Your task to perform on an android device: allow cookies in the chrome app Image 0: 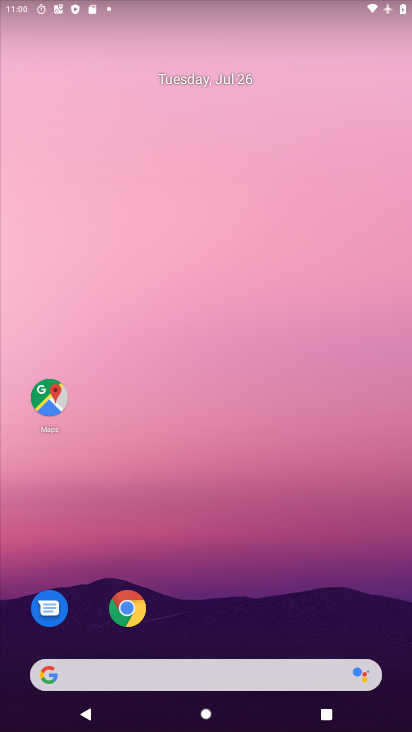
Step 0: click (143, 614)
Your task to perform on an android device: allow cookies in the chrome app Image 1: 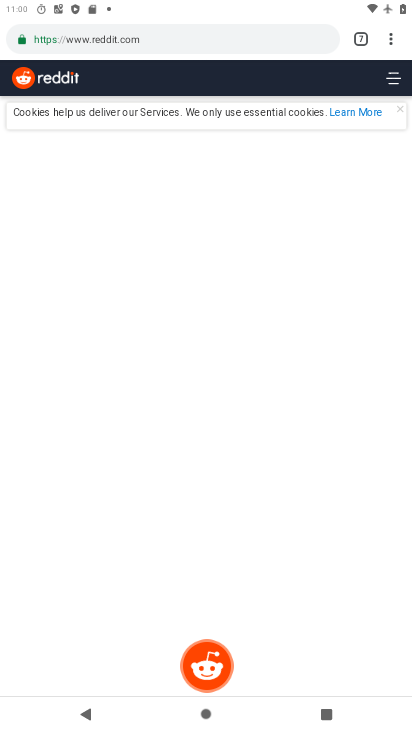
Step 1: click (390, 41)
Your task to perform on an android device: allow cookies in the chrome app Image 2: 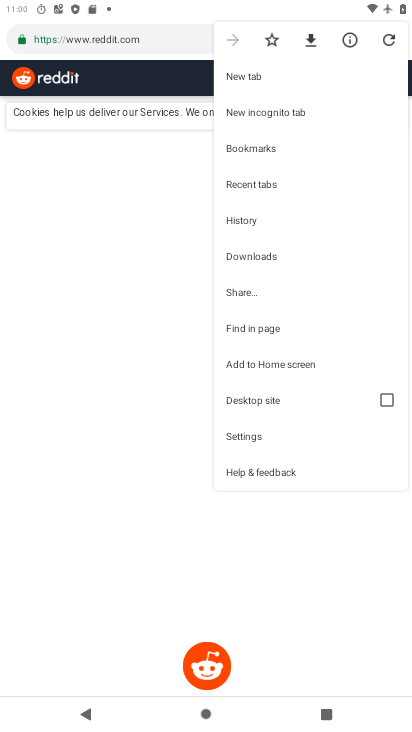
Step 2: click (242, 434)
Your task to perform on an android device: allow cookies in the chrome app Image 3: 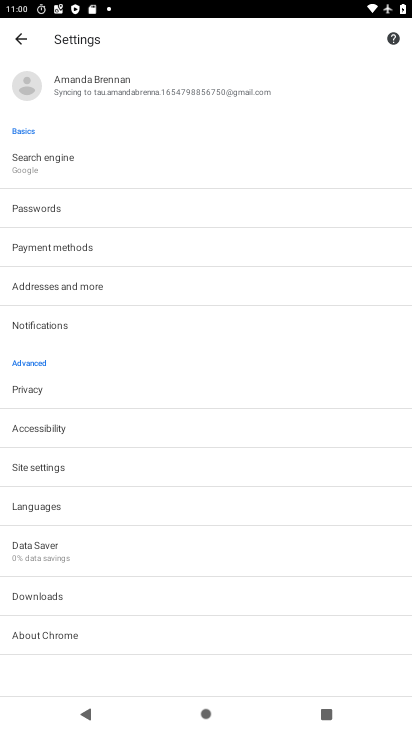
Step 3: click (39, 477)
Your task to perform on an android device: allow cookies in the chrome app Image 4: 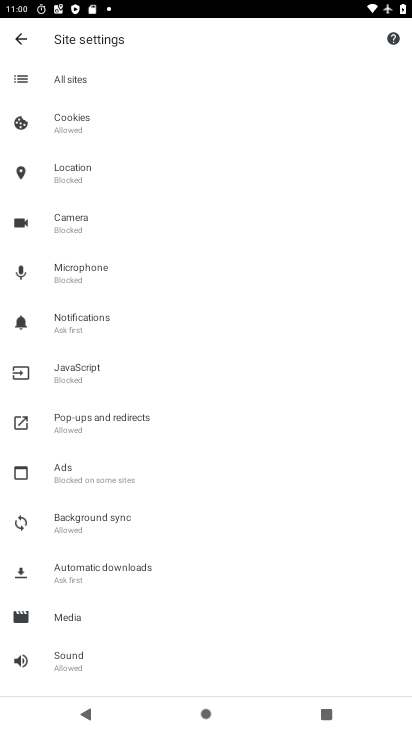
Step 4: click (113, 136)
Your task to perform on an android device: allow cookies in the chrome app Image 5: 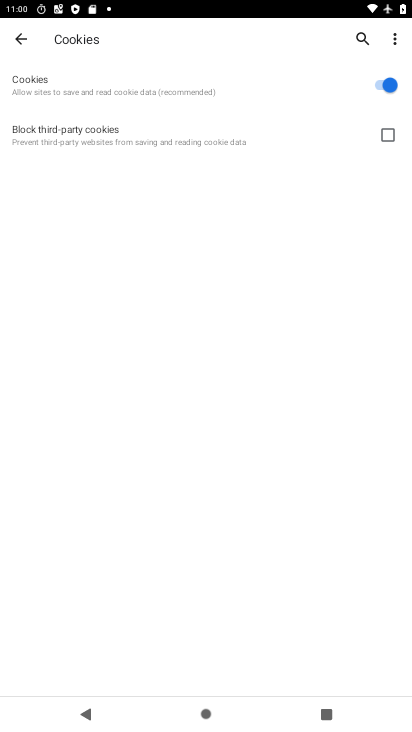
Step 5: task complete